Your task to perform on an android device: Show the shopping cart on ebay.com. Search for bose soundlink on ebay.com, select the first entry, and add it to the cart. Image 0: 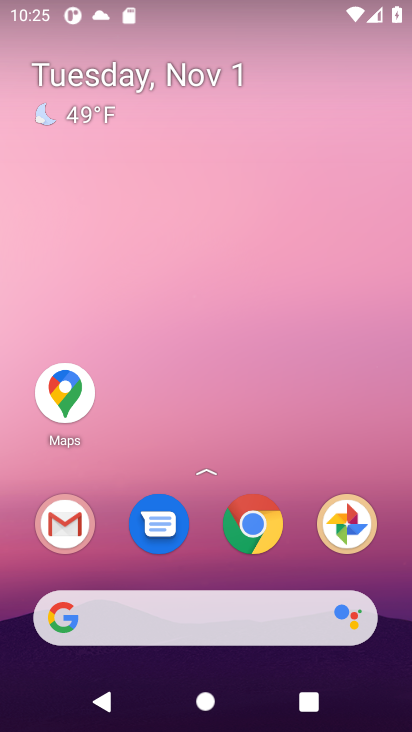
Step 0: press home button
Your task to perform on an android device: Show the shopping cart on ebay.com. Search for bose soundlink on ebay.com, select the first entry, and add it to the cart. Image 1: 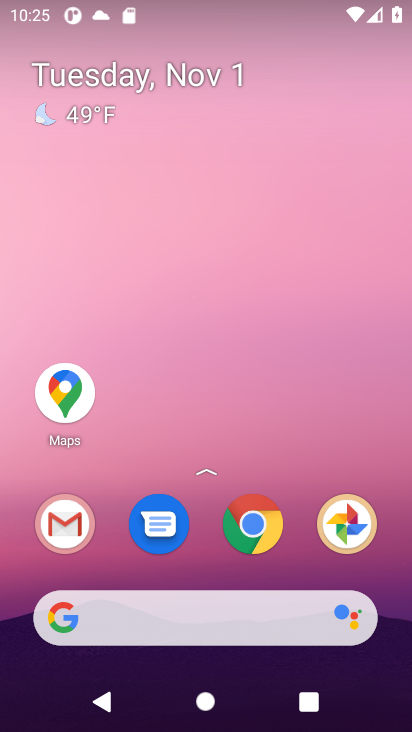
Step 1: click (91, 615)
Your task to perform on an android device: Show the shopping cart on ebay.com. Search for bose soundlink on ebay.com, select the first entry, and add it to the cart. Image 2: 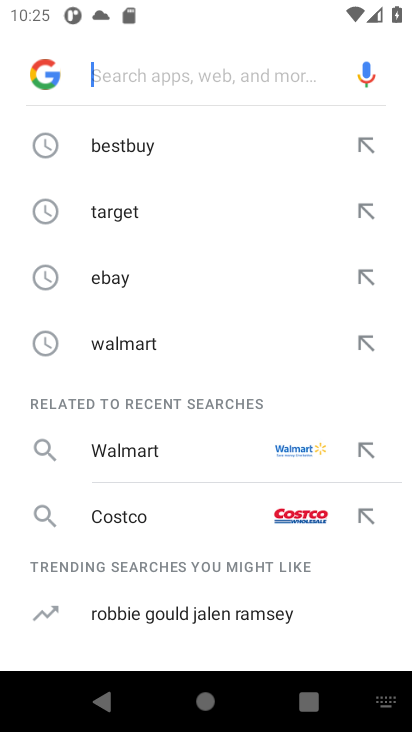
Step 2: type " ebay.com"
Your task to perform on an android device: Show the shopping cart on ebay.com. Search for bose soundlink on ebay.com, select the first entry, and add it to the cart. Image 3: 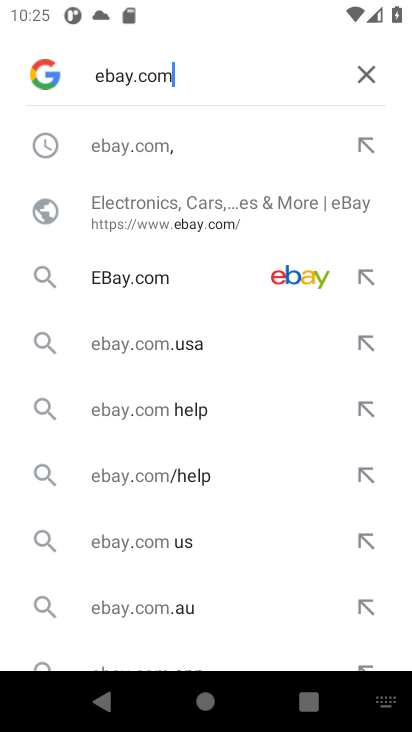
Step 3: press enter
Your task to perform on an android device: Show the shopping cart on ebay.com. Search for bose soundlink on ebay.com, select the first entry, and add it to the cart. Image 4: 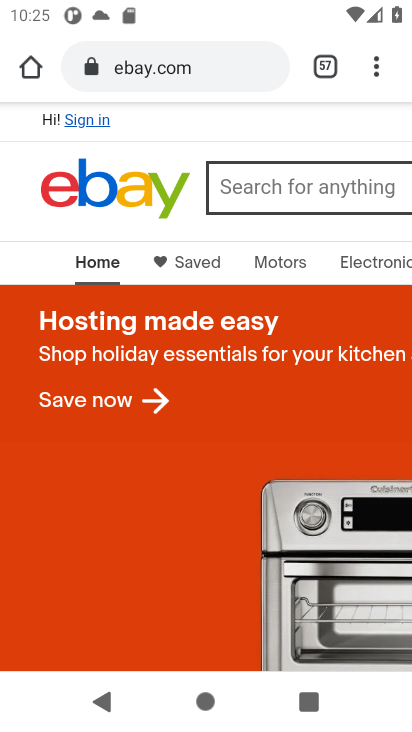
Step 4: drag from (321, 235) to (63, 212)
Your task to perform on an android device: Show the shopping cart on ebay.com. Search for bose soundlink on ebay.com, select the first entry, and add it to the cart. Image 5: 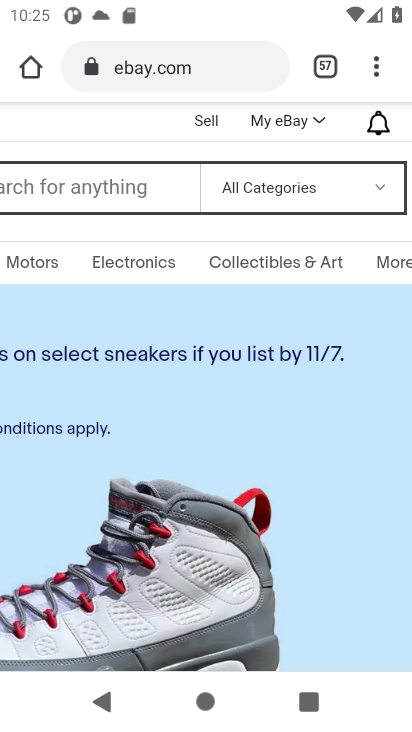
Step 5: drag from (315, 232) to (41, 214)
Your task to perform on an android device: Show the shopping cart on ebay.com. Search for bose soundlink on ebay.com, select the first entry, and add it to the cart. Image 6: 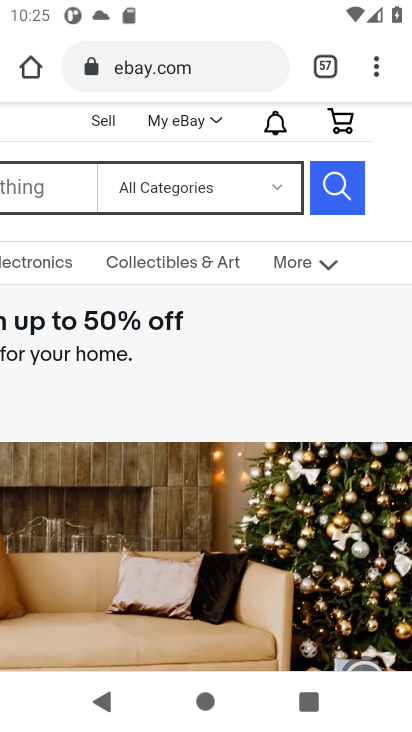
Step 6: click (351, 119)
Your task to perform on an android device: Show the shopping cart on ebay.com. Search for bose soundlink on ebay.com, select the first entry, and add it to the cart. Image 7: 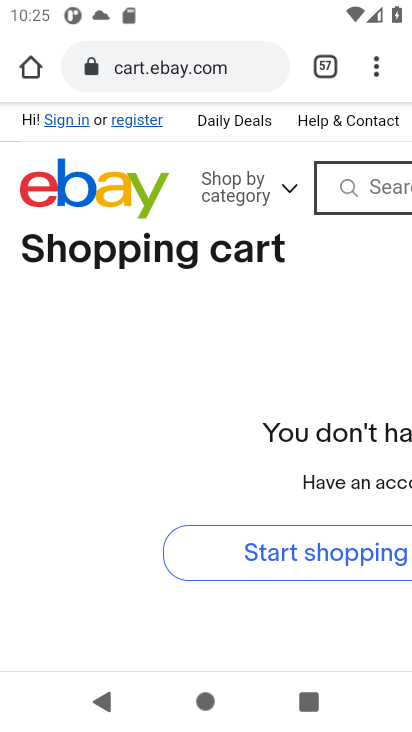
Step 7: click (344, 190)
Your task to perform on an android device: Show the shopping cart on ebay.com. Search for bose soundlink on ebay.com, select the first entry, and add it to the cart. Image 8: 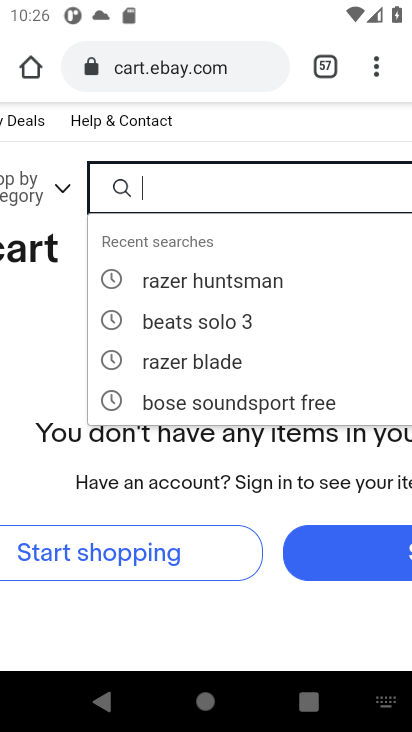
Step 8: type "bose soundlink"
Your task to perform on an android device: Show the shopping cart on ebay.com. Search for bose soundlink on ebay.com, select the first entry, and add it to the cart. Image 9: 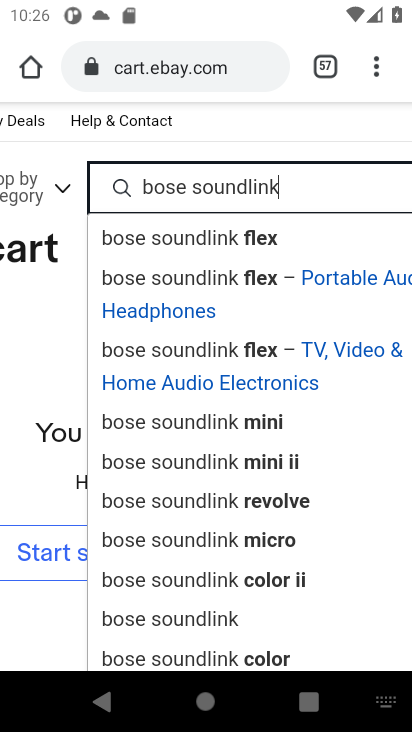
Step 9: press enter
Your task to perform on an android device: Show the shopping cart on ebay.com. Search for bose soundlink on ebay.com, select the first entry, and add it to the cart. Image 10: 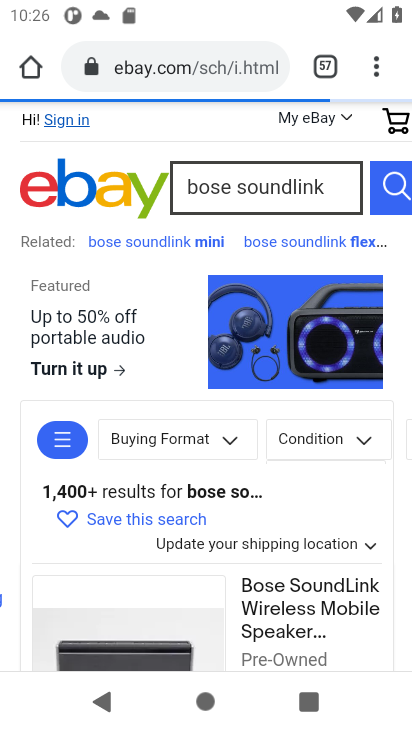
Step 10: drag from (292, 579) to (262, 259)
Your task to perform on an android device: Show the shopping cart on ebay.com. Search for bose soundlink on ebay.com, select the first entry, and add it to the cart. Image 11: 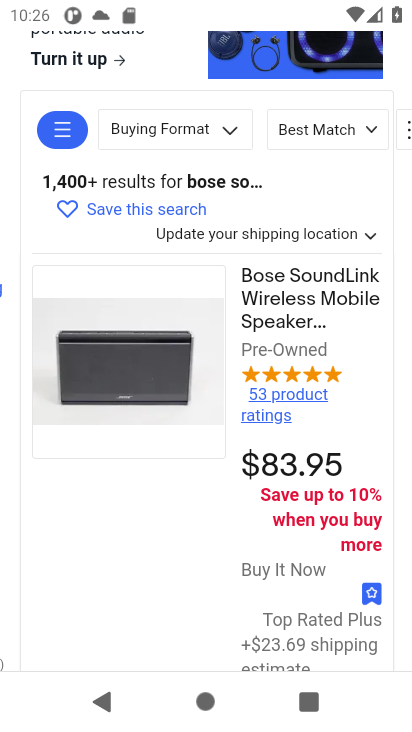
Step 11: drag from (236, 546) to (236, 434)
Your task to perform on an android device: Show the shopping cart on ebay.com. Search for bose soundlink on ebay.com, select the first entry, and add it to the cart. Image 12: 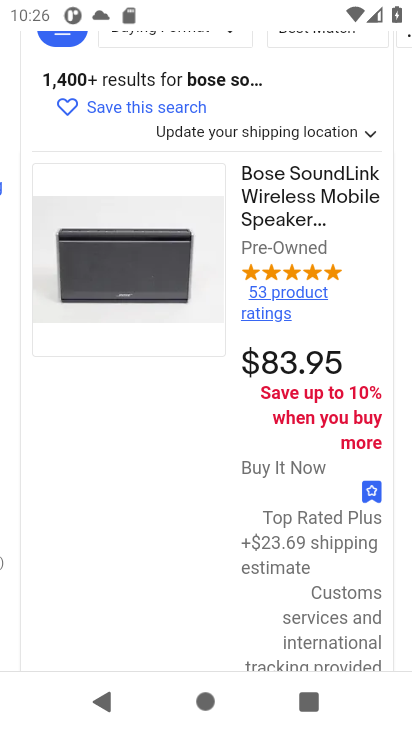
Step 12: click (309, 197)
Your task to perform on an android device: Show the shopping cart on ebay.com. Search for bose soundlink on ebay.com, select the first entry, and add it to the cart. Image 13: 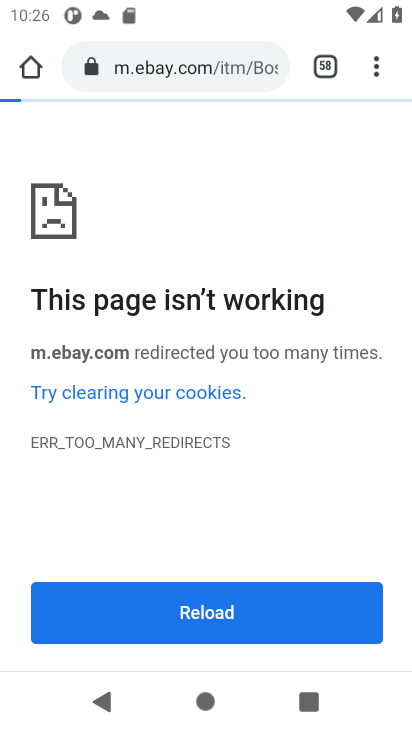
Step 13: task complete